Your task to perform on an android device: Go to ESPN.com Image 0: 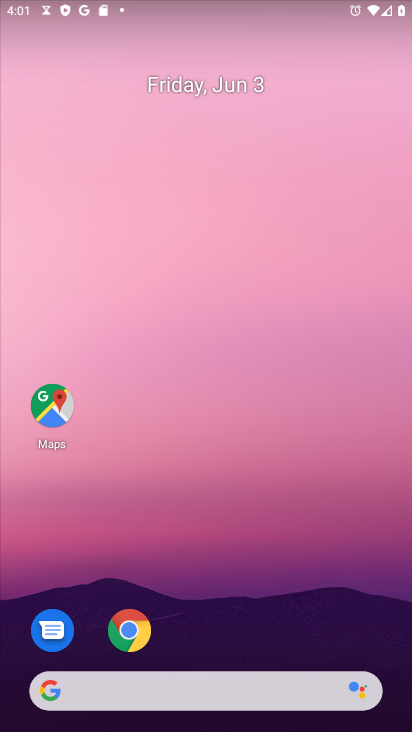
Step 0: drag from (290, 613) to (244, 12)
Your task to perform on an android device: Go to ESPN.com Image 1: 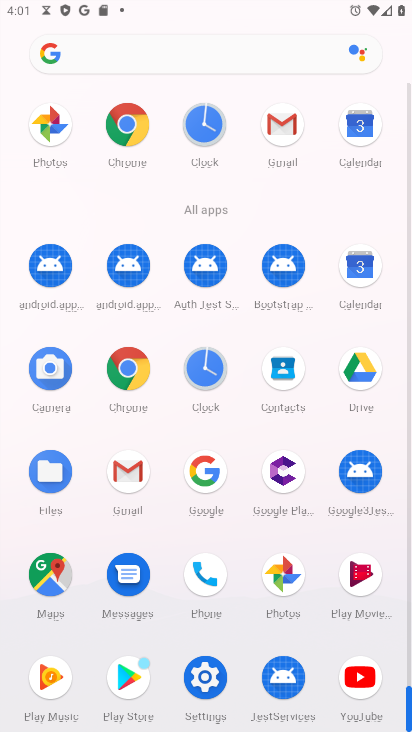
Step 1: click (127, 119)
Your task to perform on an android device: Go to ESPN.com Image 2: 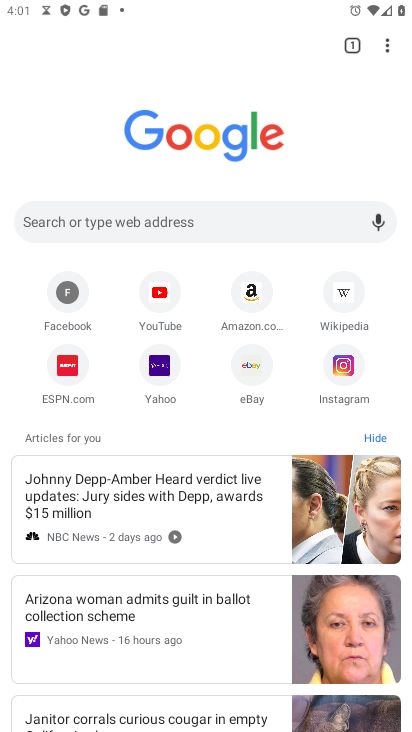
Step 2: click (68, 371)
Your task to perform on an android device: Go to ESPN.com Image 3: 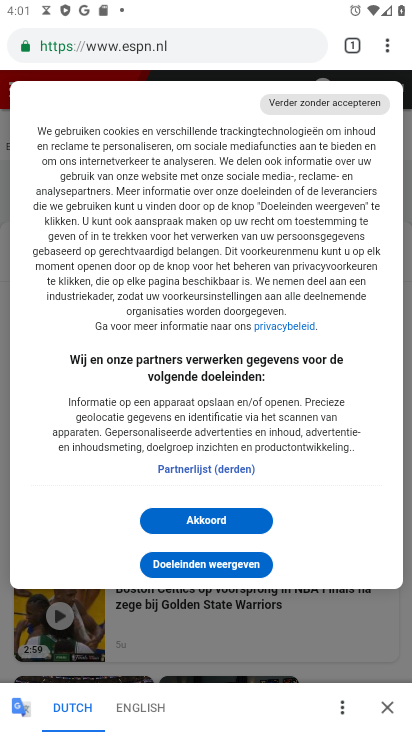
Step 3: click (211, 521)
Your task to perform on an android device: Go to ESPN.com Image 4: 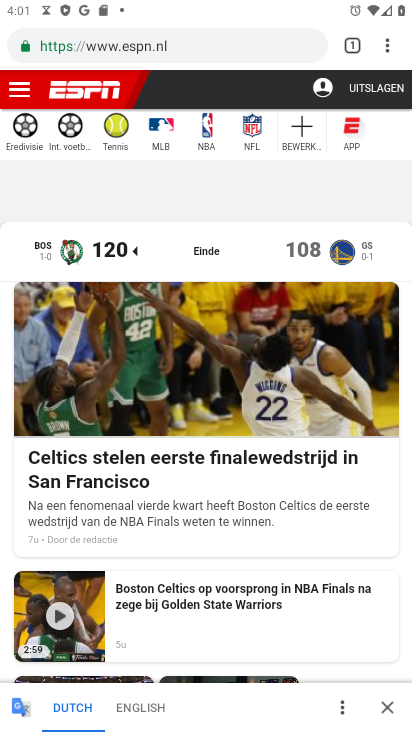
Step 4: task complete